Your task to perform on an android device: Open calendar and show me the second week of next month Image 0: 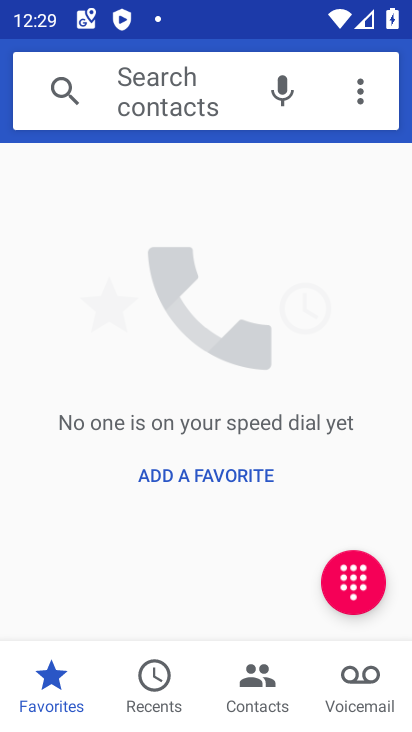
Step 0: press home button
Your task to perform on an android device: Open calendar and show me the second week of next month Image 1: 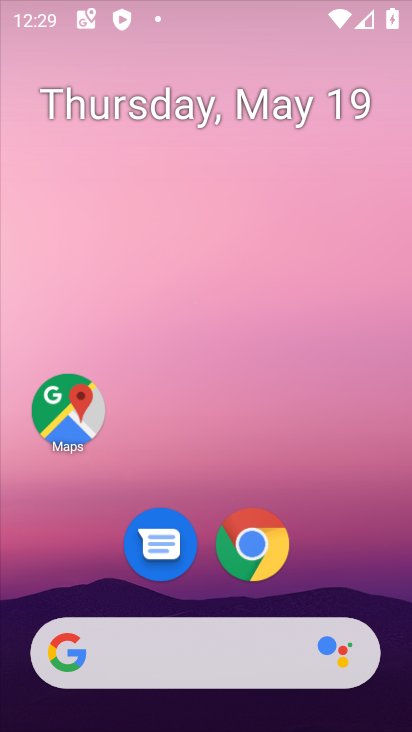
Step 1: drag from (129, 632) to (172, 64)
Your task to perform on an android device: Open calendar and show me the second week of next month Image 2: 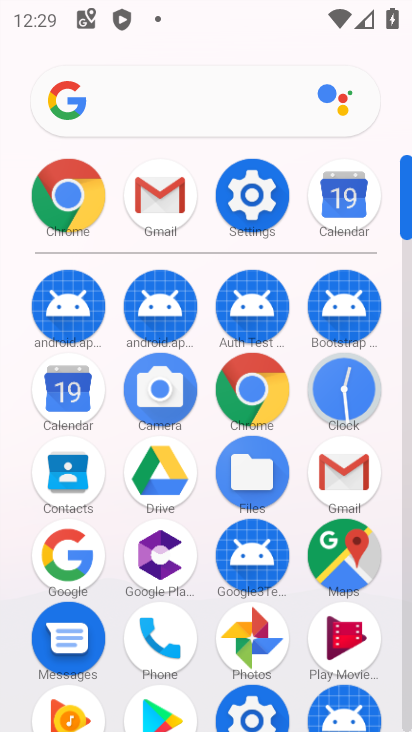
Step 2: click (77, 400)
Your task to perform on an android device: Open calendar and show me the second week of next month Image 3: 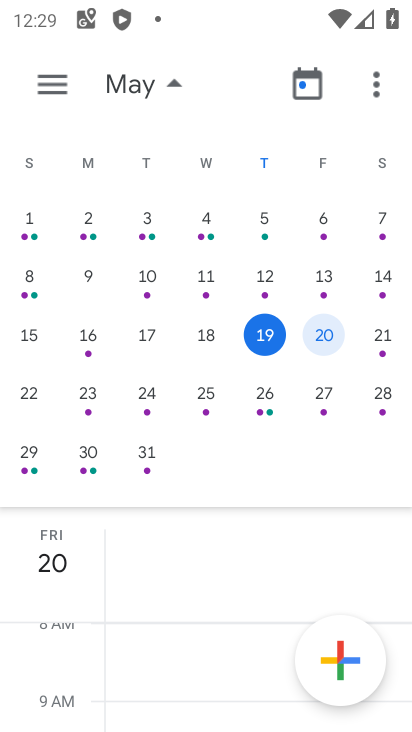
Step 3: drag from (368, 312) to (0, 316)
Your task to perform on an android device: Open calendar and show me the second week of next month Image 4: 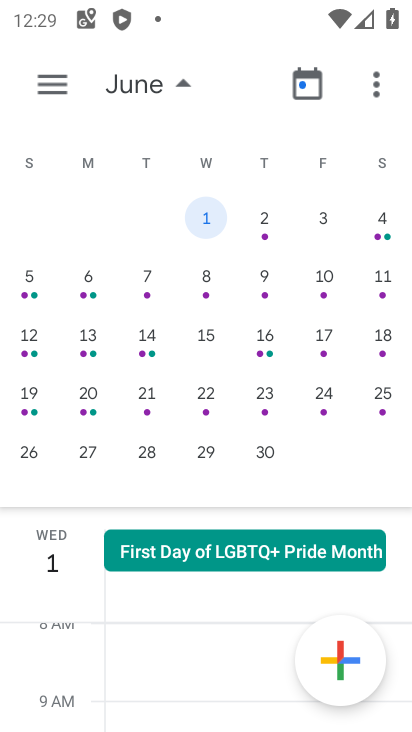
Step 4: click (306, 287)
Your task to perform on an android device: Open calendar and show me the second week of next month Image 5: 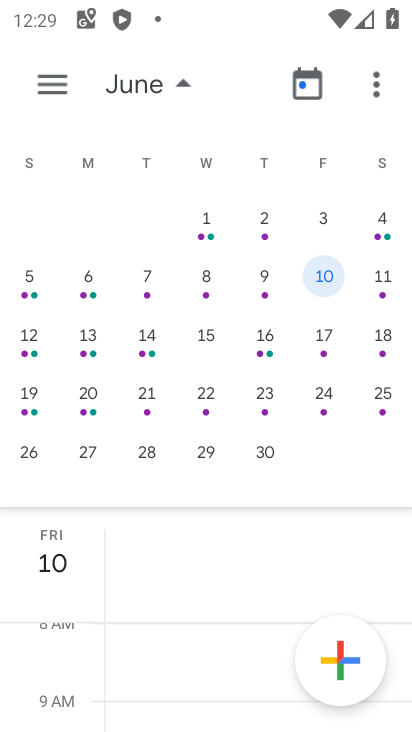
Step 5: task complete